Your task to perform on an android device: Open Google Chrome and open the bookmarks view Image 0: 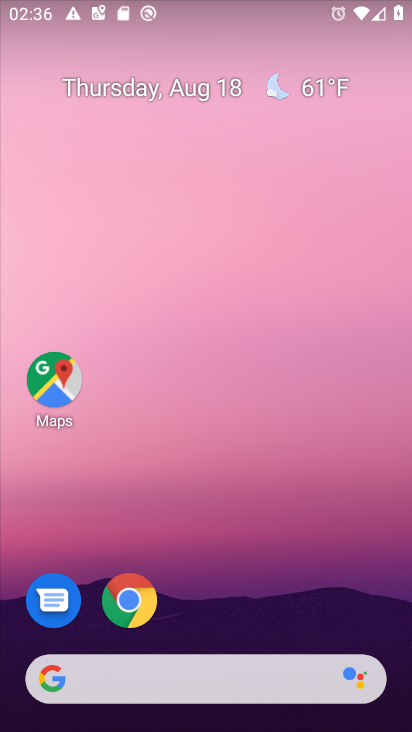
Step 0: click (130, 601)
Your task to perform on an android device: Open Google Chrome and open the bookmarks view Image 1: 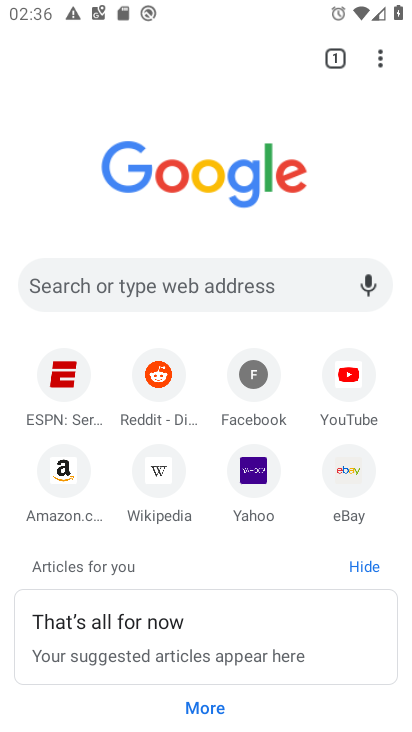
Step 1: task complete